Your task to perform on an android device: find photos in the google photos app Image 0: 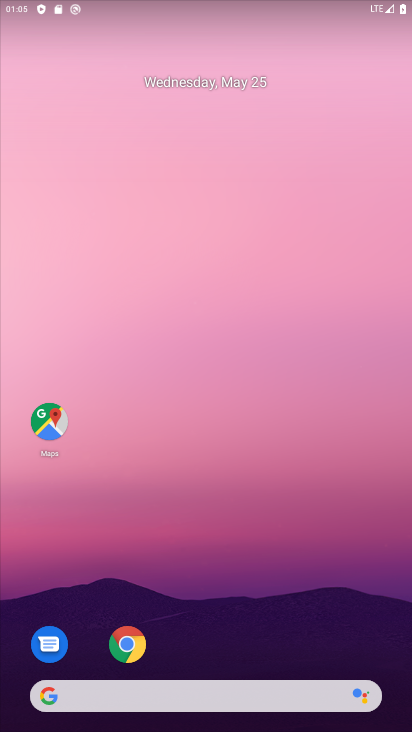
Step 0: drag from (165, 557) to (105, 4)
Your task to perform on an android device: find photos in the google photos app Image 1: 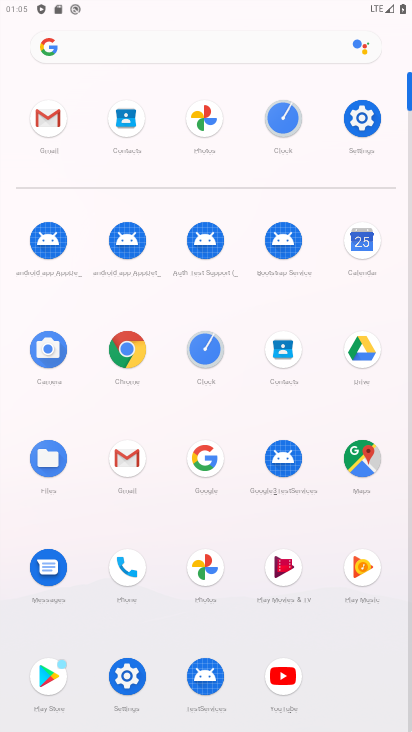
Step 1: click (202, 118)
Your task to perform on an android device: find photos in the google photos app Image 2: 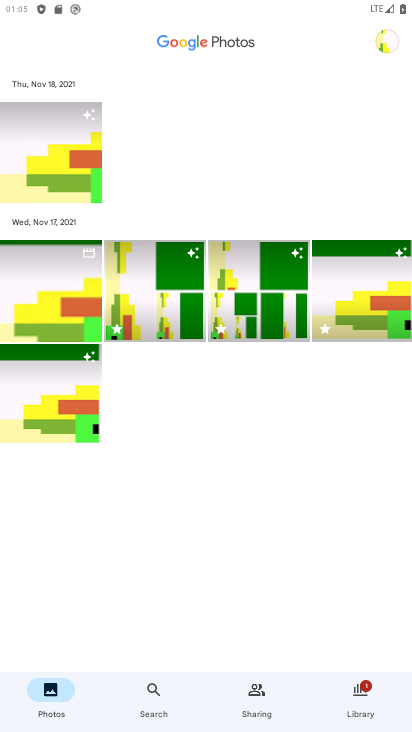
Step 2: click (150, 696)
Your task to perform on an android device: find photos in the google photos app Image 3: 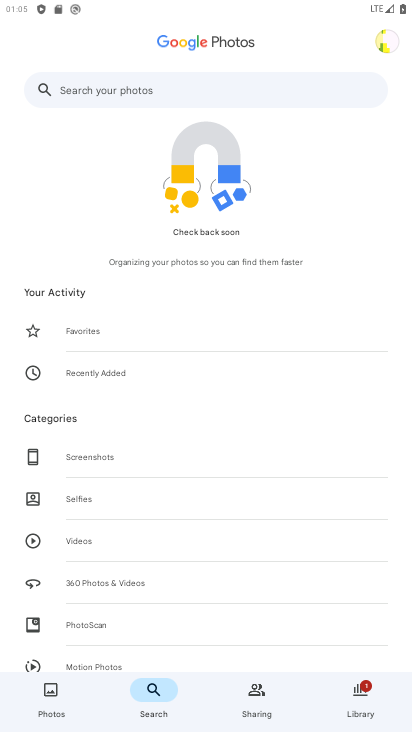
Step 3: task complete